Your task to perform on an android device: turn off improve location accuracy Image 0: 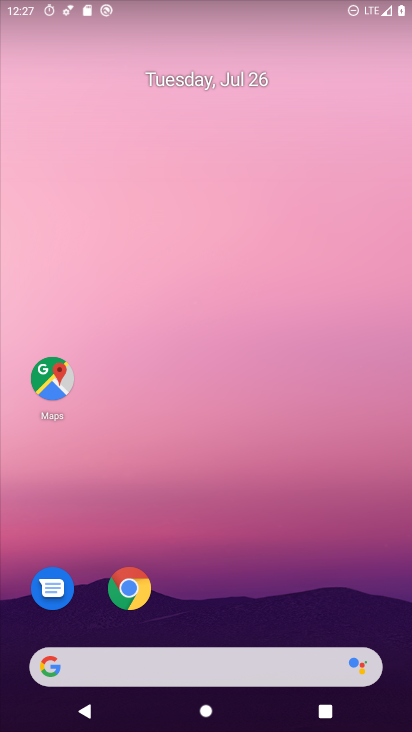
Step 0: drag from (257, 611) to (199, 114)
Your task to perform on an android device: turn off improve location accuracy Image 1: 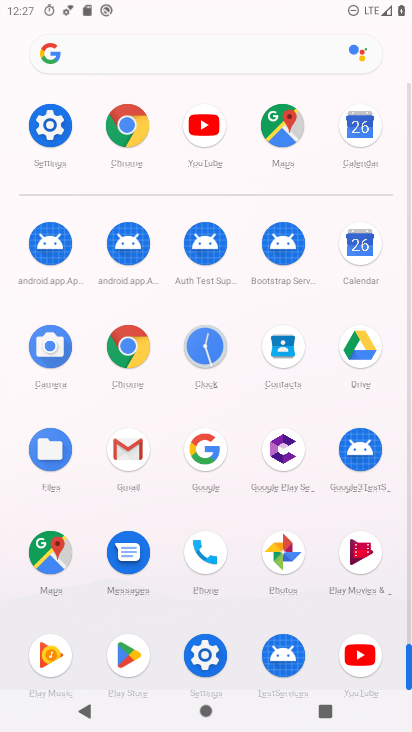
Step 1: click (194, 645)
Your task to perform on an android device: turn off improve location accuracy Image 2: 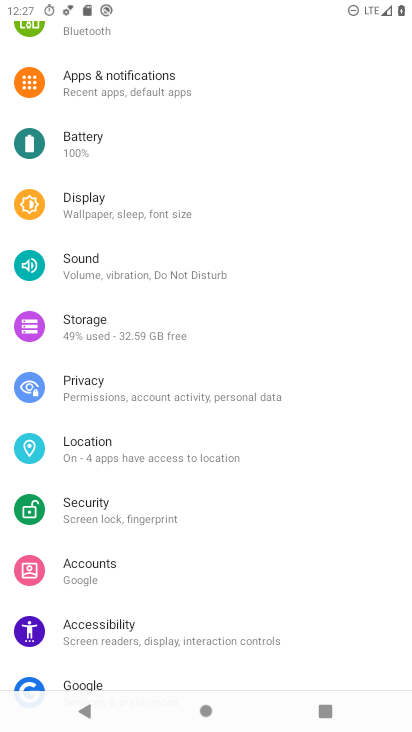
Step 2: click (129, 452)
Your task to perform on an android device: turn off improve location accuracy Image 3: 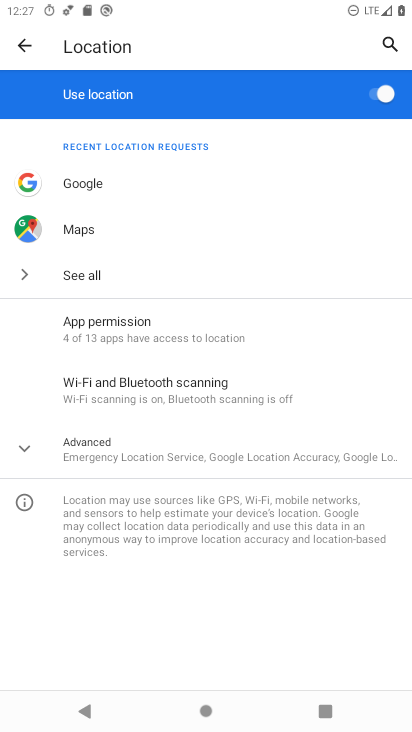
Step 3: click (164, 452)
Your task to perform on an android device: turn off improve location accuracy Image 4: 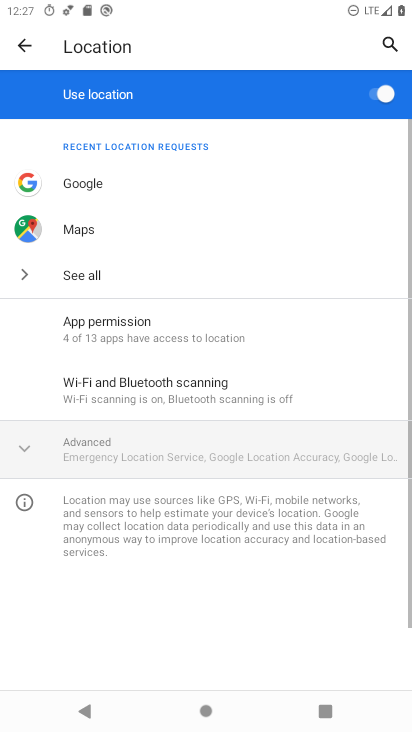
Step 4: drag from (164, 449) to (200, 221)
Your task to perform on an android device: turn off improve location accuracy Image 5: 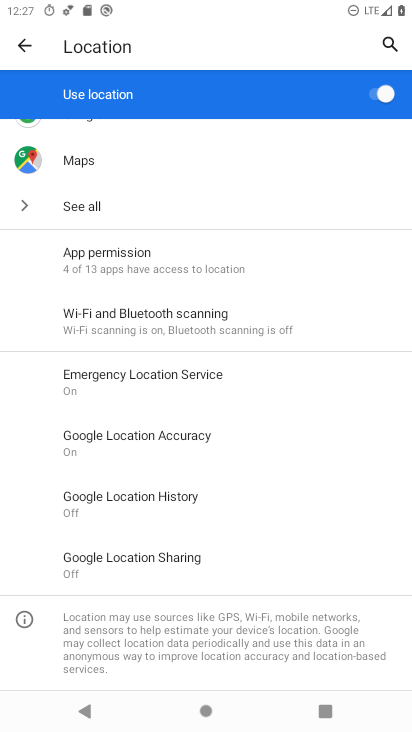
Step 5: click (204, 439)
Your task to perform on an android device: turn off improve location accuracy Image 6: 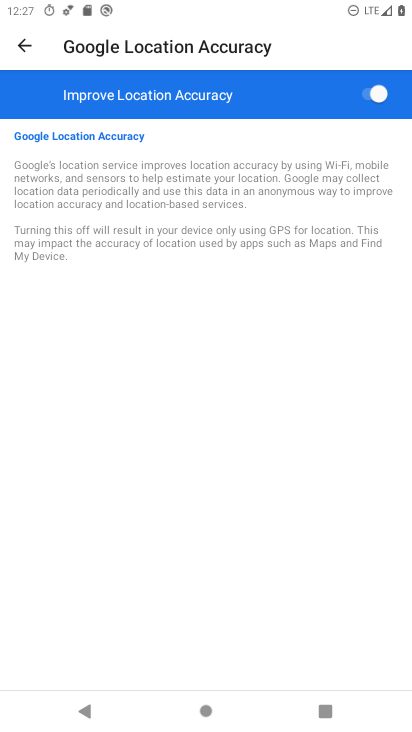
Step 6: click (363, 86)
Your task to perform on an android device: turn off improve location accuracy Image 7: 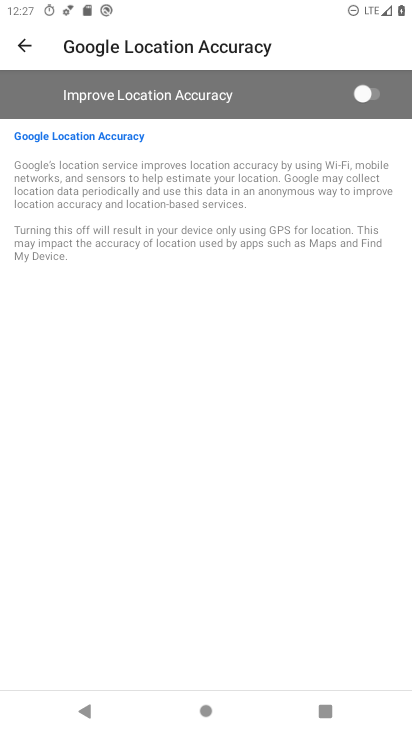
Step 7: task complete